Your task to perform on an android device: What's the weather today? Image 0: 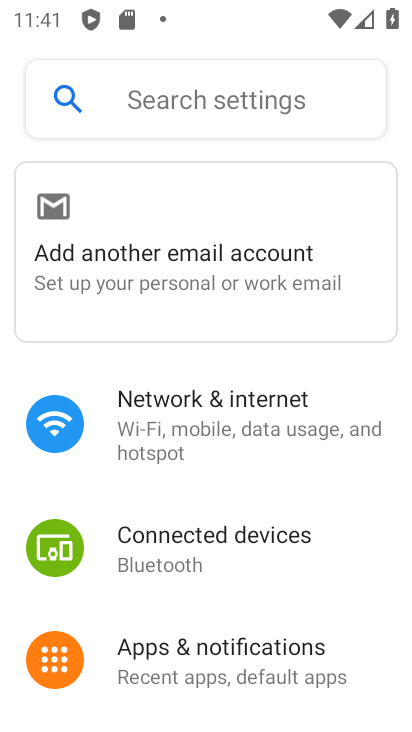
Step 0: press home button
Your task to perform on an android device: What's the weather today? Image 1: 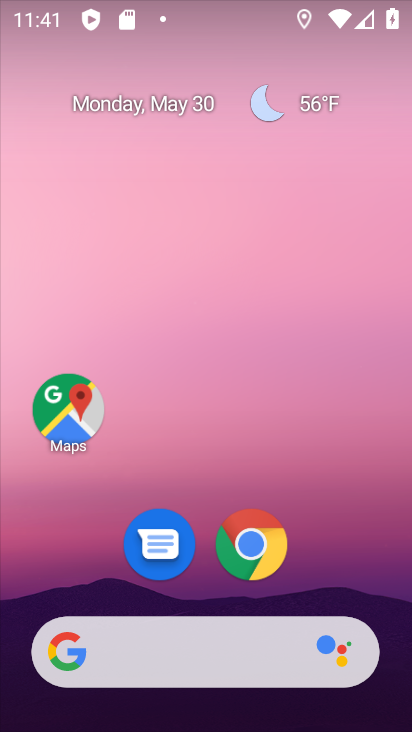
Step 1: click (211, 658)
Your task to perform on an android device: What's the weather today? Image 2: 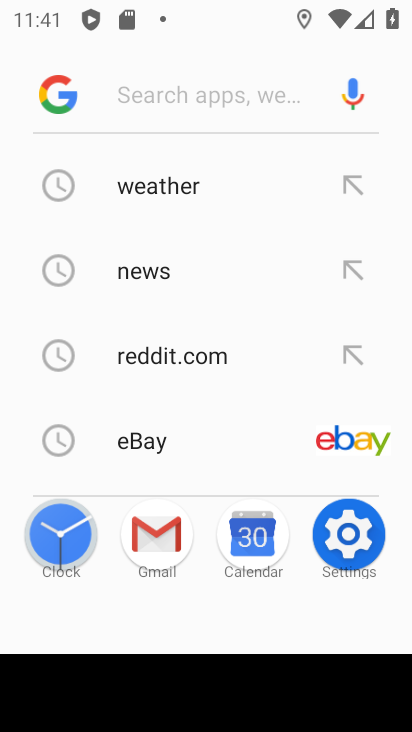
Step 2: click (162, 189)
Your task to perform on an android device: What's the weather today? Image 3: 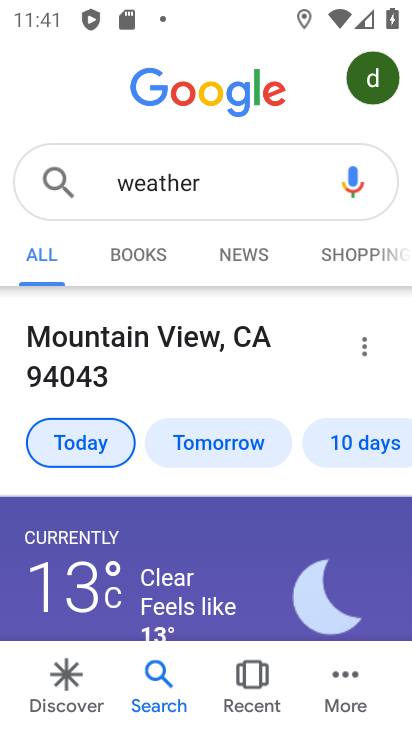
Step 3: task complete